Your task to perform on an android device: Open eBay Image 0: 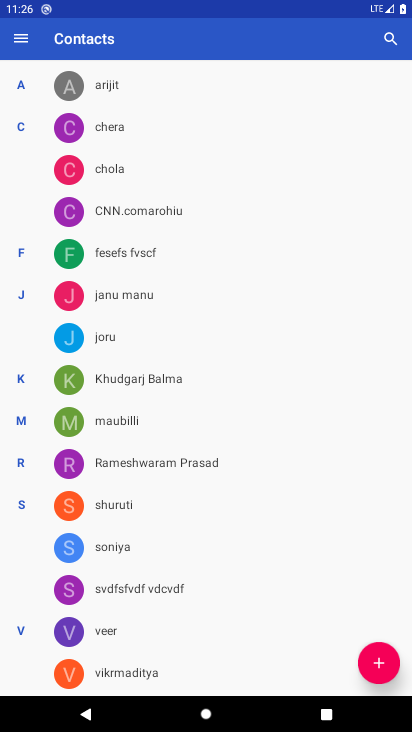
Step 0: press home button
Your task to perform on an android device: Open eBay Image 1: 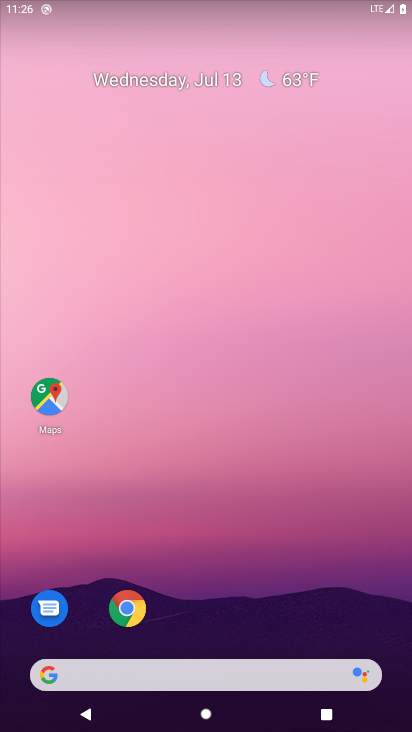
Step 1: drag from (250, 606) to (271, 105)
Your task to perform on an android device: Open eBay Image 2: 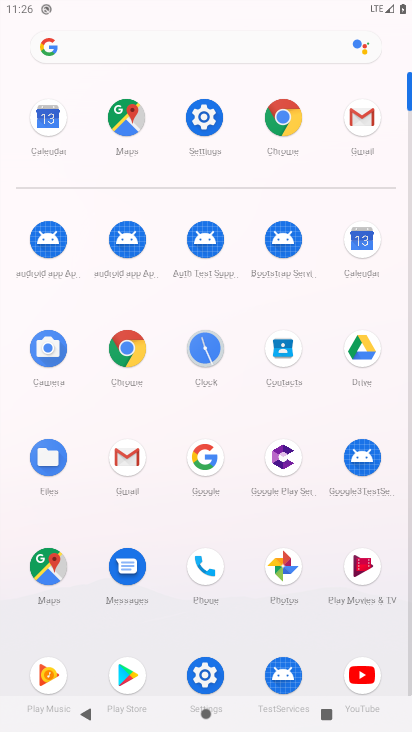
Step 2: click (281, 120)
Your task to perform on an android device: Open eBay Image 3: 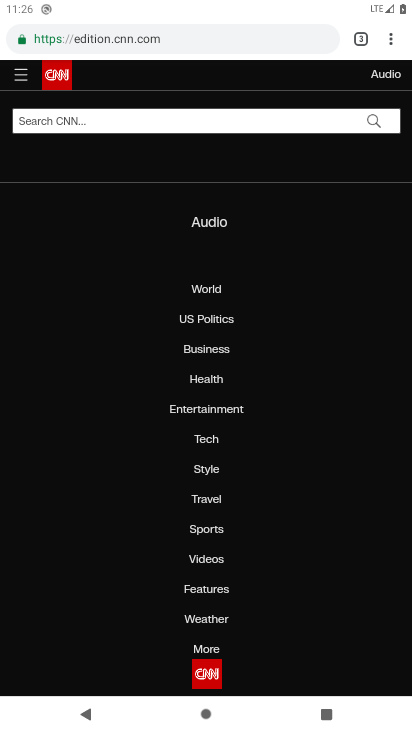
Step 3: click (139, 40)
Your task to perform on an android device: Open eBay Image 4: 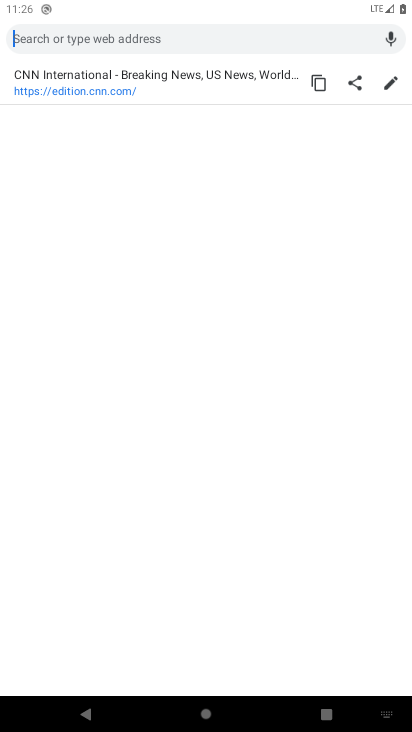
Step 4: type " eBay"
Your task to perform on an android device: Open eBay Image 5: 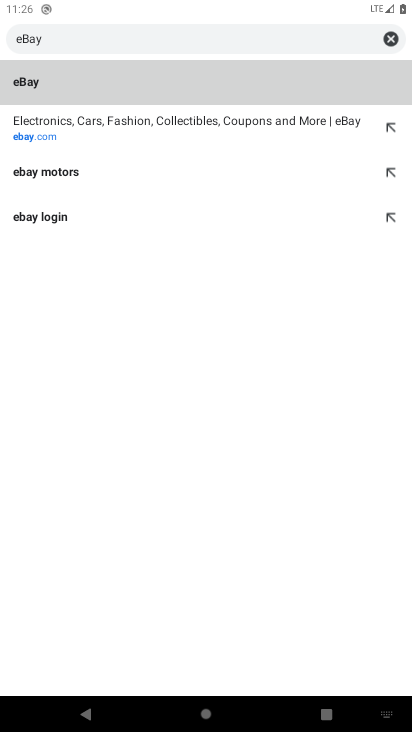
Step 5: click (34, 134)
Your task to perform on an android device: Open eBay Image 6: 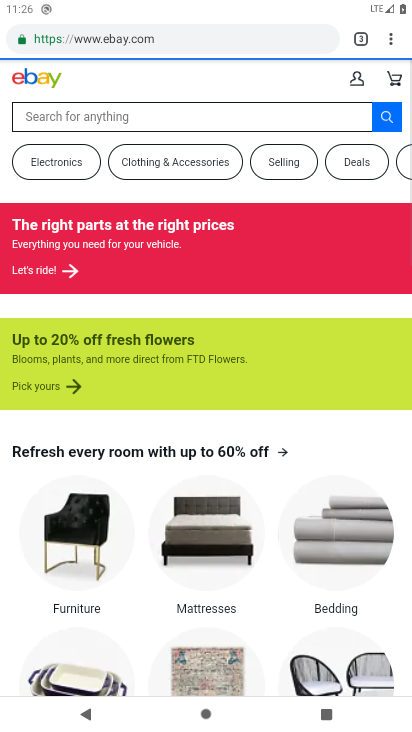
Step 6: task complete